Your task to perform on an android device: turn off improve location accuracy Image 0: 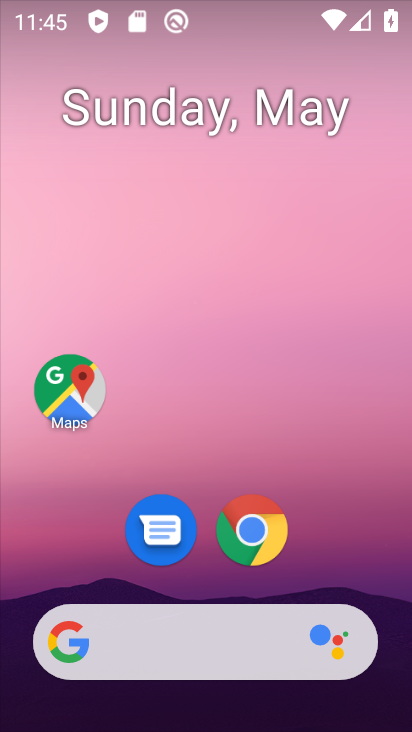
Step 0: drag from (213, 583) to (242, 52)
Your task to perform on an android device: turn off improve location accuracy Image 1: 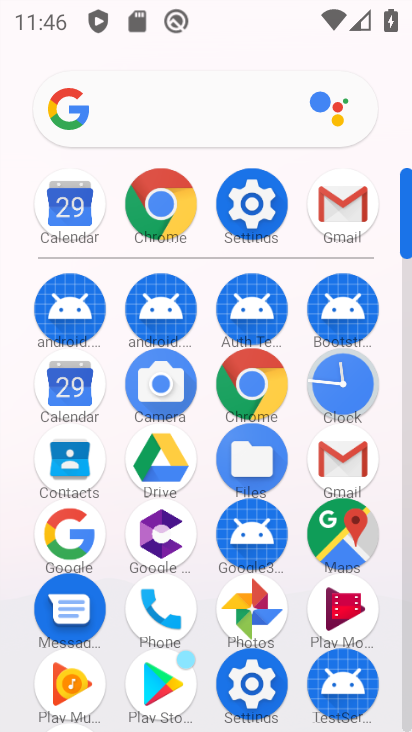
Step 1: click (246, 191)
Your task to perform on an android device: turn off improve location accuracy Image 2: 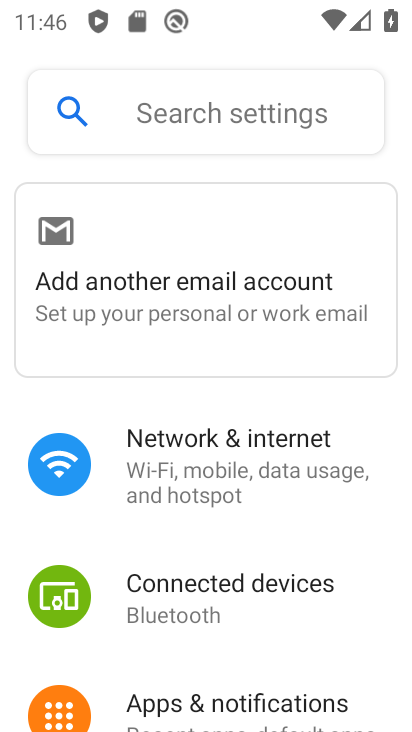
Step 2: drag from (202, 661) to (324, 74)
Your task to perform on an android device: turn off improve location accuracy Image 3: 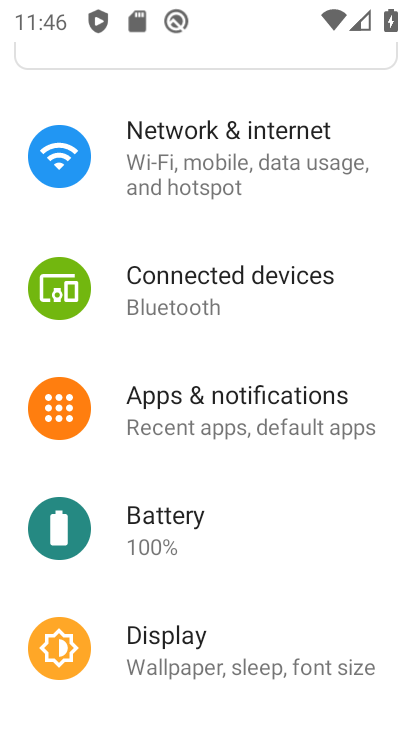
Step 3: drag from (197, 684) to (308, 79)
Your task to perform on an android device: turn off improve location accuracy Image 4: 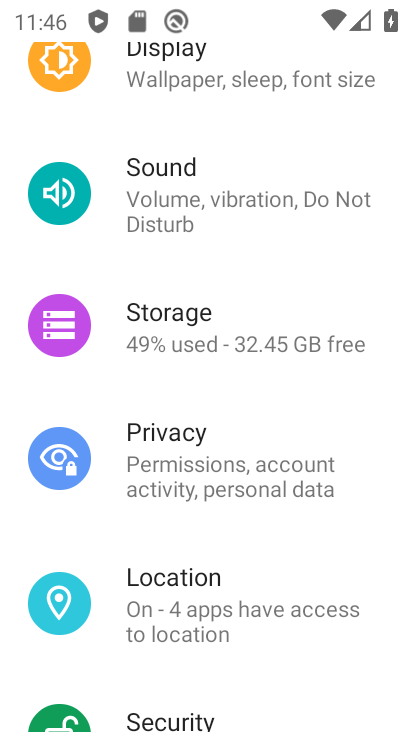
Step 4: click (222, 608)
Your task to perform on an android device: turn off improve location accuracy Image 5: 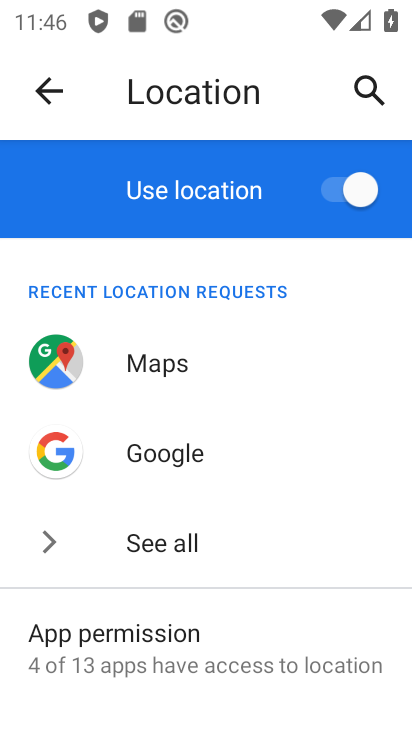
Step 5: drag from (194, 663) to (266, 43)
Your task to perform on an android device: turn off improve location accuracy Image 6: 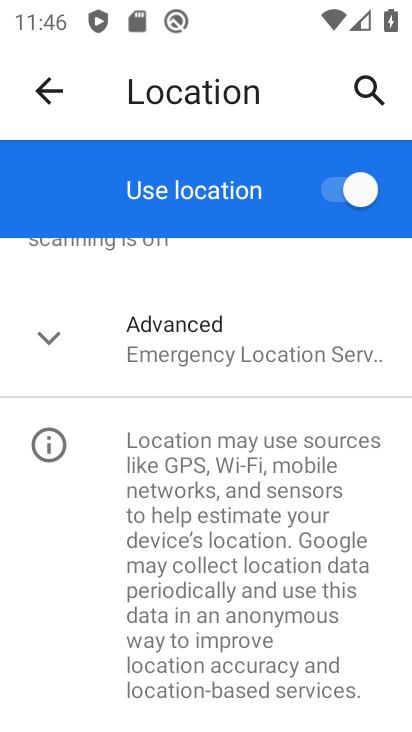
Step 6: drag from (210, 345) to (189, 631)
Your task to perform on an android device: turn off improve location accuracy Image 7: 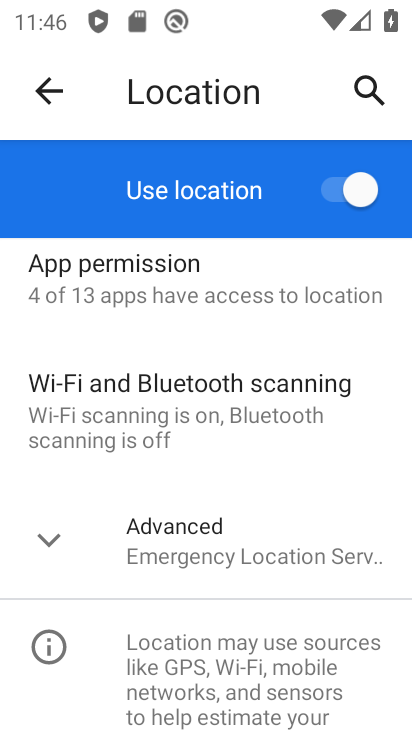
Step 7: click (252, 296)
Your task to perform on an android device: turn off improve location accuracy Image 8: 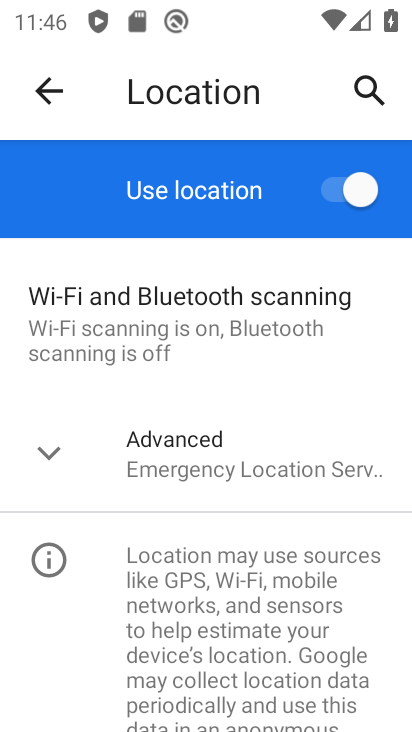
Step 8: click (205, 450)
Your task to perform on an android device: turn off improve location accuracy Image 9: 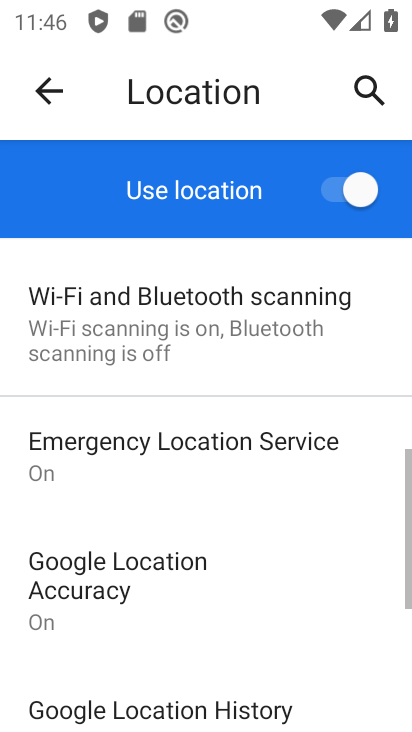
Step 9: drag from (168, 609) to (194, 199)
Your task to perform on an android device: turn off improve location accuracy Image 10: 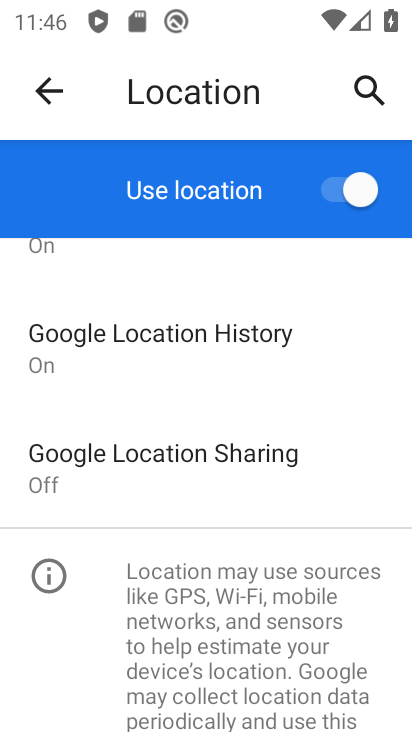
Step 10: drag from (186, 343) to (186, 573)
Your task to perform on an android device: turn off improve location accuracy Image 11: 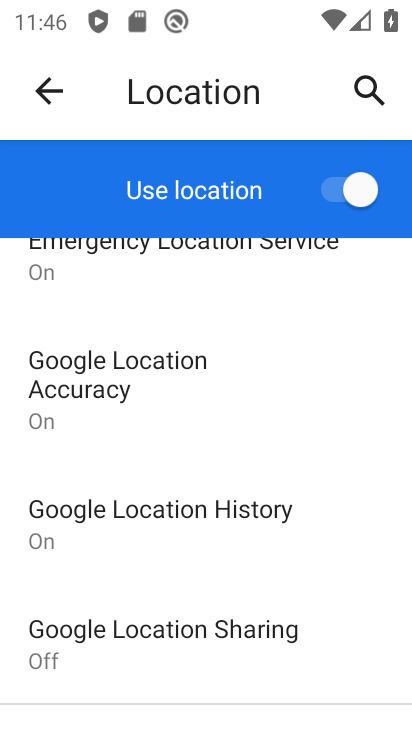
Step 11: click (71, 382)
Your task to perform on an android device: turn off improve location accuracy Image 12: 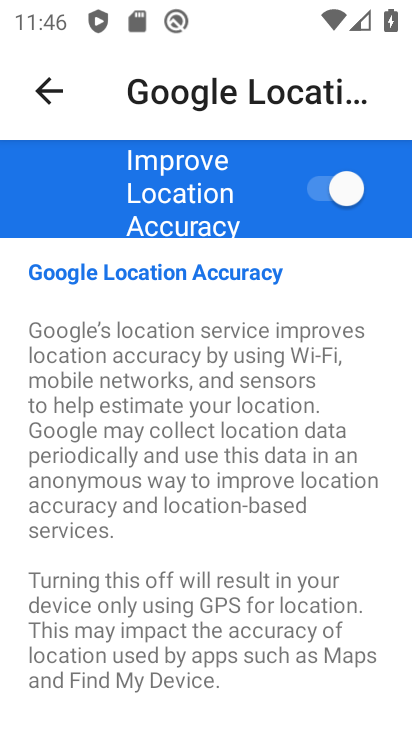
Step 12: click (336, 188)
Your task to perform on an android device: turn off improve location accuracy Image 13: 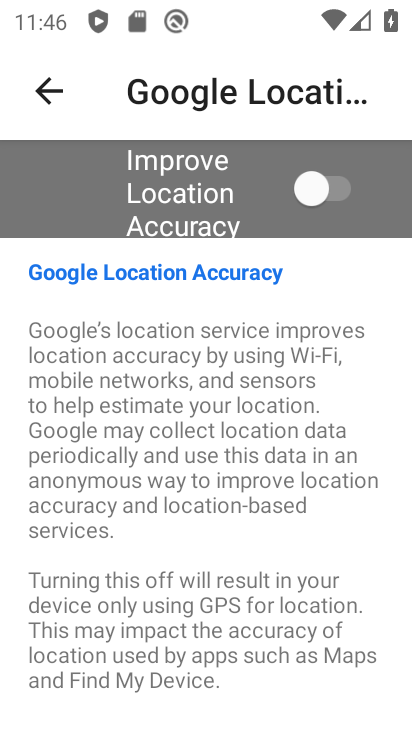
Step 13: task complete